Your task to perform on an android device: Go to calendar. Show me events next week Image 0: 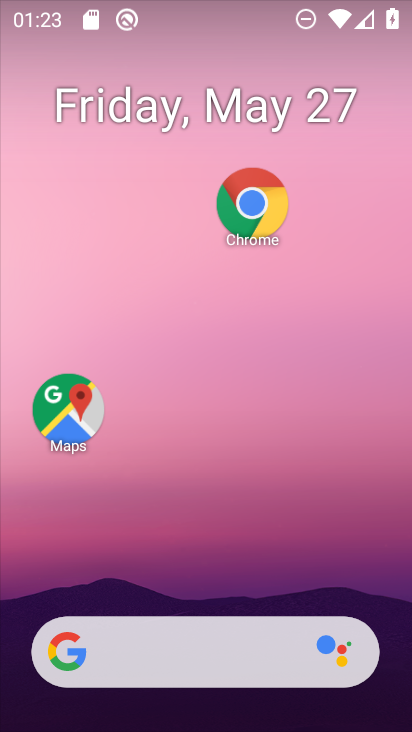
Step 0: drag from (259, 570) to (383, 53)
Your task to perform on an android device: Go to calendar. Show me events next week Image 1: 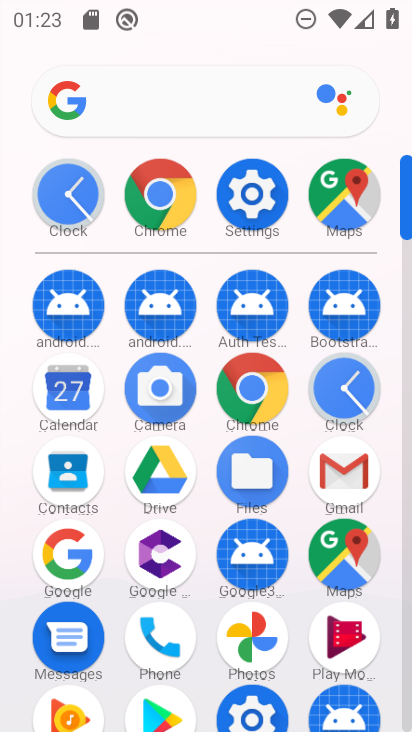
Step 1: click (55, 383)
Your task to perform on an android device: Go to calendar. Show me events next week Image 2: 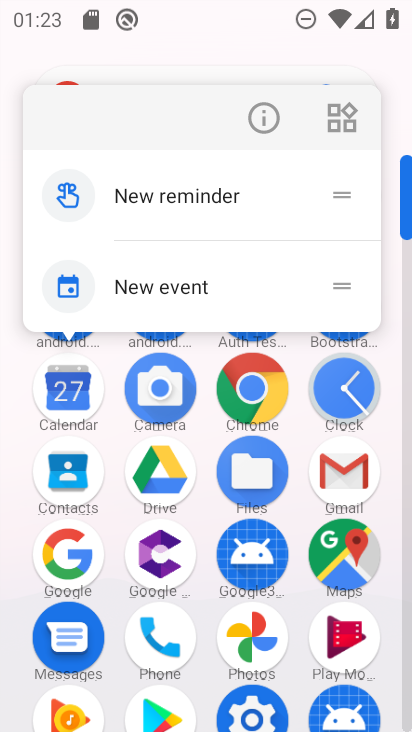
Step 2: click (259, 111)
Your task to perform on an android device: Go to calendar. Show me events next week Image 3: 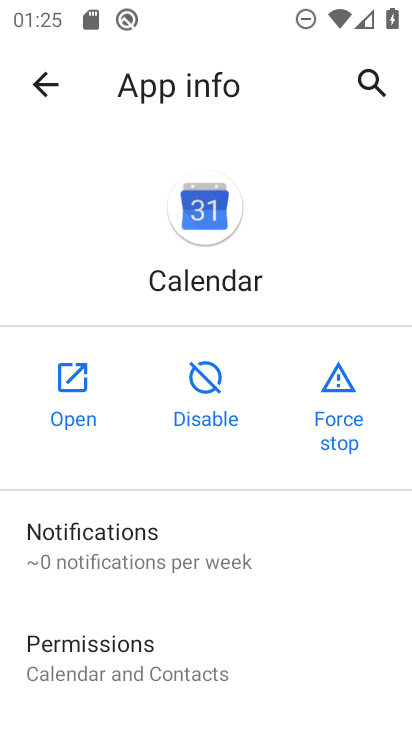
Step 3: click (81, 392)
Your task to perform on an android device: Go to calendar. Show me events next week Image 4: 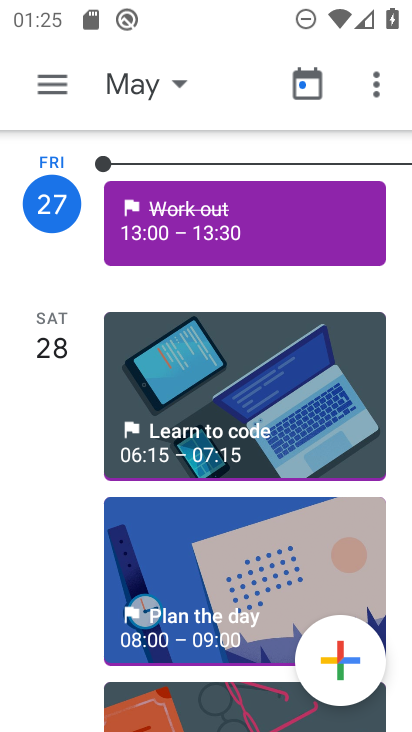
Step 4: click (156, 91)
Your task to perform on an android device: Go to calendar. Show me events next week Image 5: 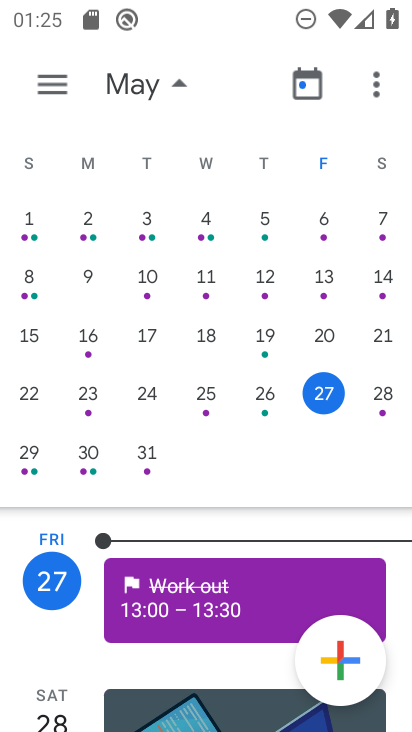
Step 5: drag from (358, 301) to (0, 306)
Your task to perform on an android device: Go to calendar. Show me events next week Image 6: 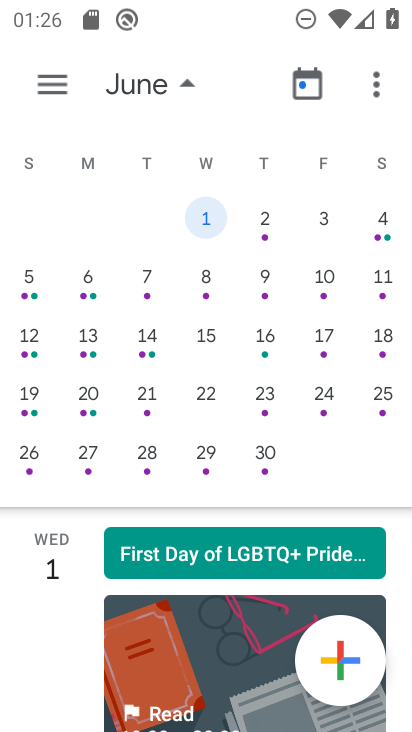
Step 6: drag from (194, 522) to (230, 226)
Your task to perform on an android device: Go to calendar. Show me events next week Image 7: 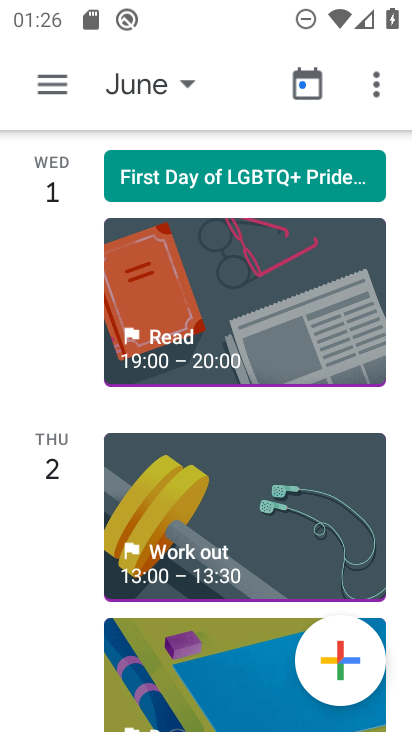
Step 7: drag from (179, 514) to (257, 238)
Your task to perform on an android device: Go to calendar. Show me events next week Image 8: 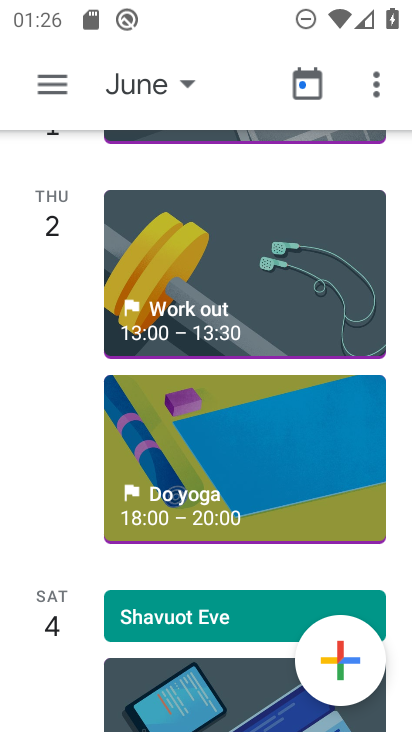
Step 8: drag from (262, 232) to (279, 603)
Your task to perform on an android device: Go to calendar. Show me events next week Image 9: 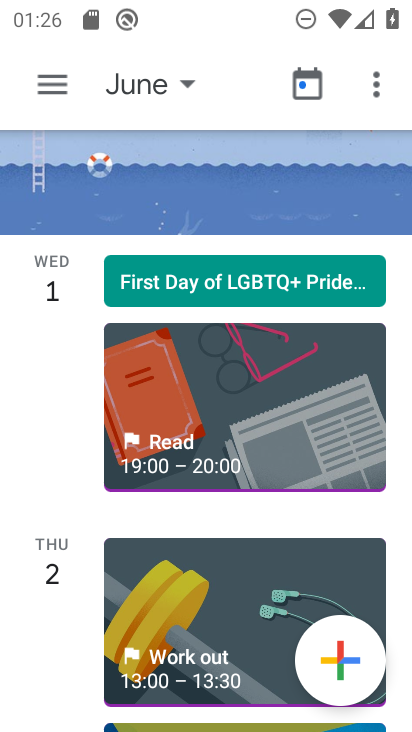
Step 9: click (378, 83)
Your task to perform on an android device: Go to calendar. Show me events next week Image 10: 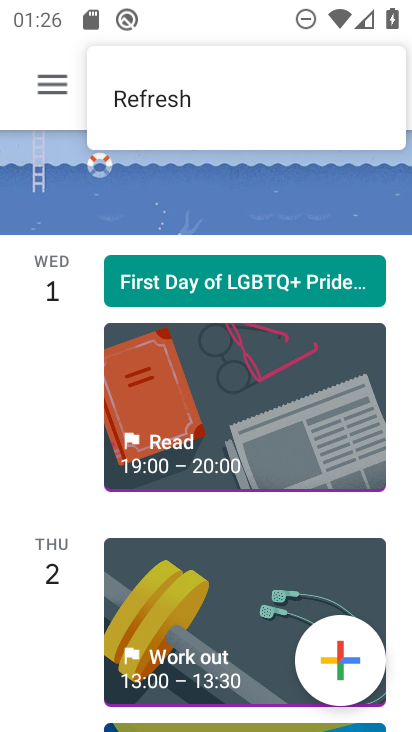
Step 10: drag from (189, 263) to (290, 517)
Your task to perform on an android device: Go to calendar. Show me events next week Image 11: 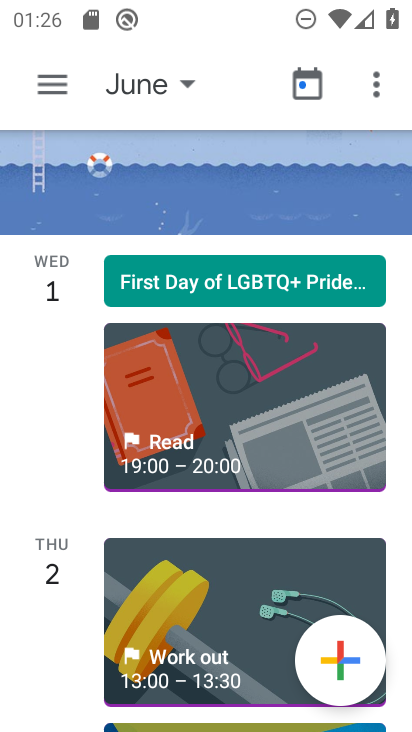
Step 11: click (166, 73)
Your task to perform on an android device: Go to calendar. Show me events next week Image 12: 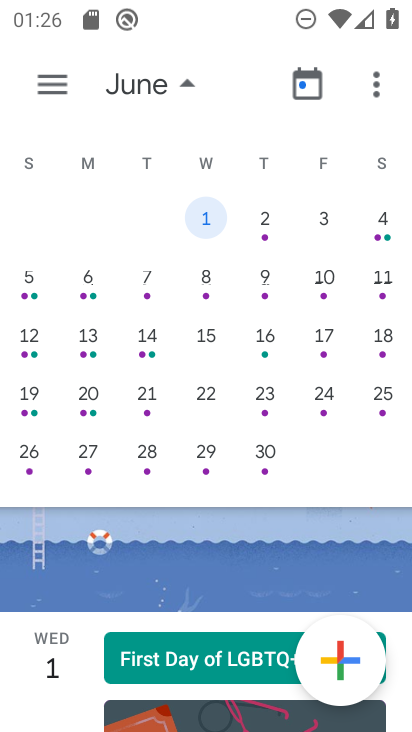
Step 12: drag from (90, 373) to (348, 339)
Your task to perform on an android device: Go to calendar. Show me events next week Image 13: 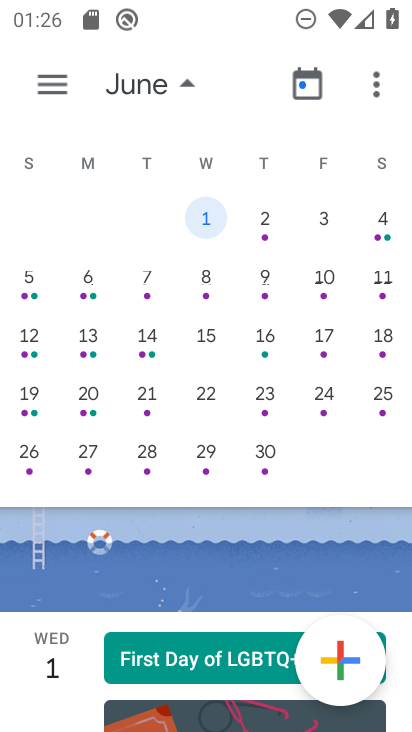
Step 13: drag from (92, 424) to (399, 296)
Your task to perform on an android device: Go to calendar. Show me events next week Image 14: 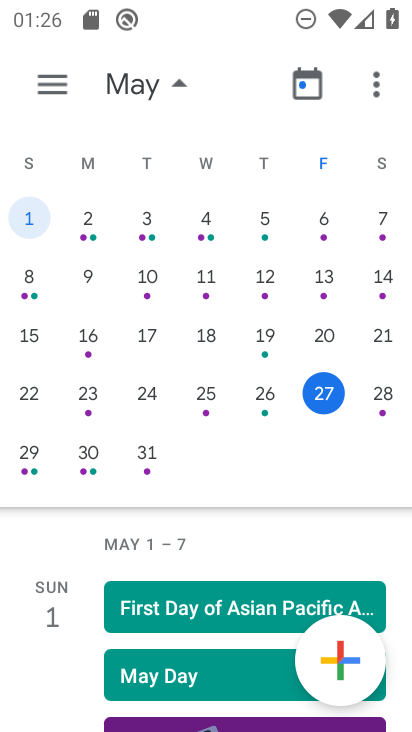
Step 14: click (100, 464)
Your task to perform on an android device: Go to calendar. Show me events next week Image 15: 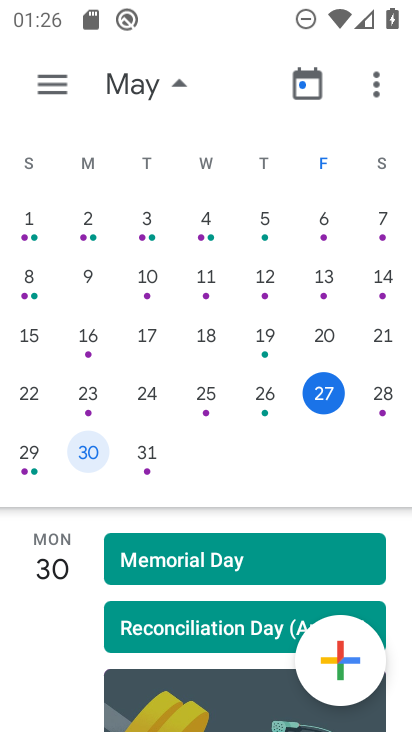
Step 15: task complete